Your task to perform on an android device: star an email in the gmail app Image 0: 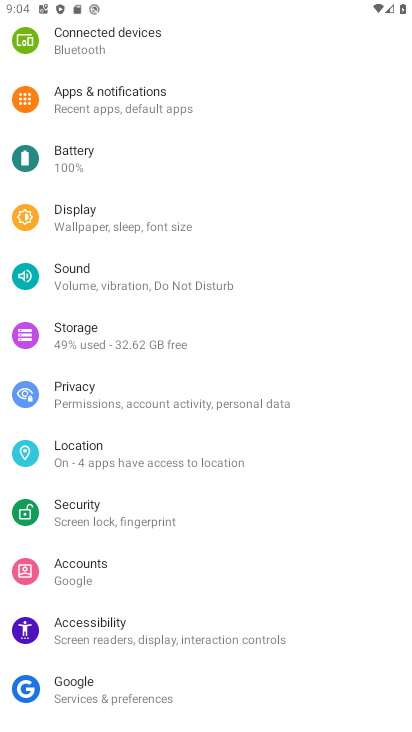
Step 0: press home button
Your task to perform on an android device: star an email in the gmail app Image 1: 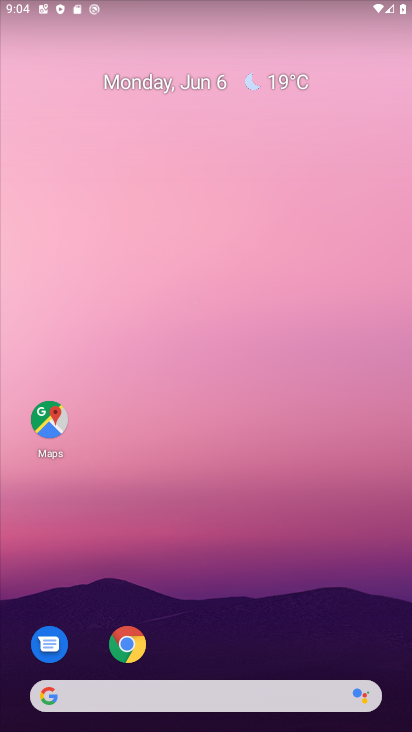
Step 1: drag from (197, 672) to (257, 259)
Your task to perform on an android device: star an email in the gmail app Image 2: 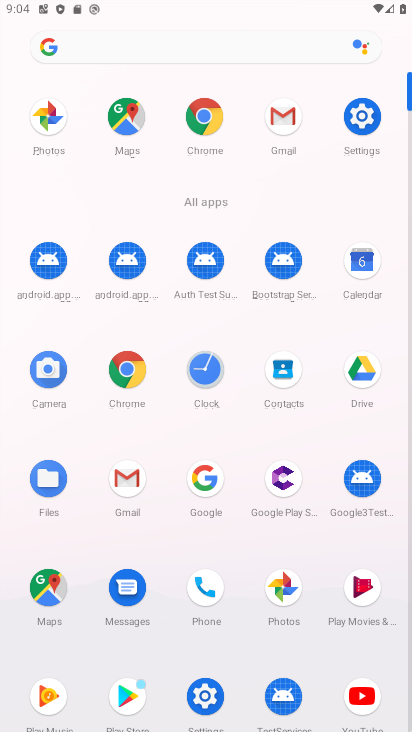
Step 2: click (131, 493)
Your task to perform on an android device: star an email in the gmail app Image 3: 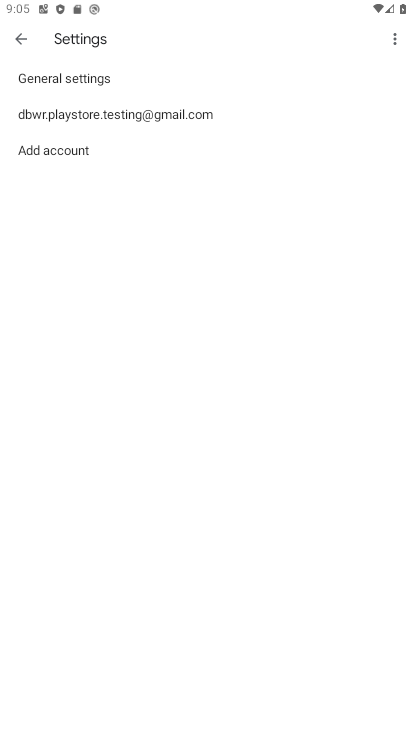
Step 3: click (12, 43)
Your task to perform on an android device: star an email in the gmail app Image 4: 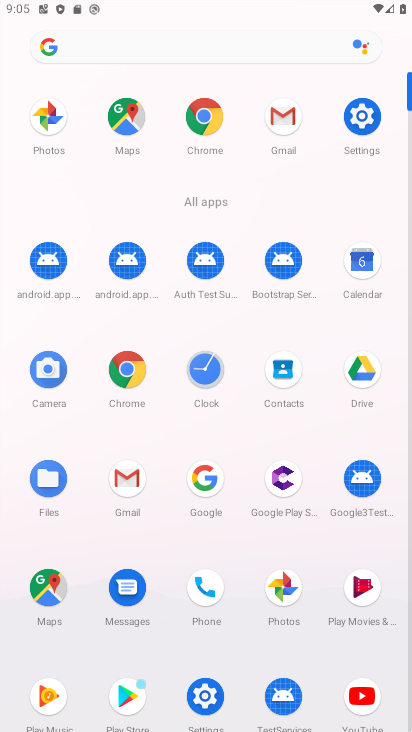
Step 4: click (127, 481)
Your task to perform on an android device: star an email in the gmail app Image 5: 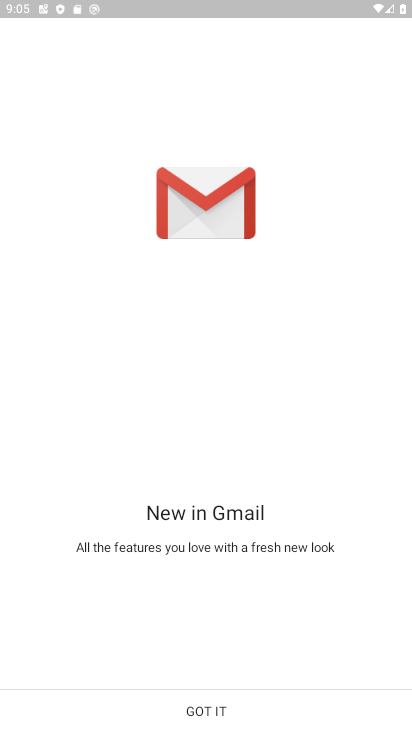
Step 5: click (221, 709)
Your task to perform on an android device: star an email in the gmail app Image 6: 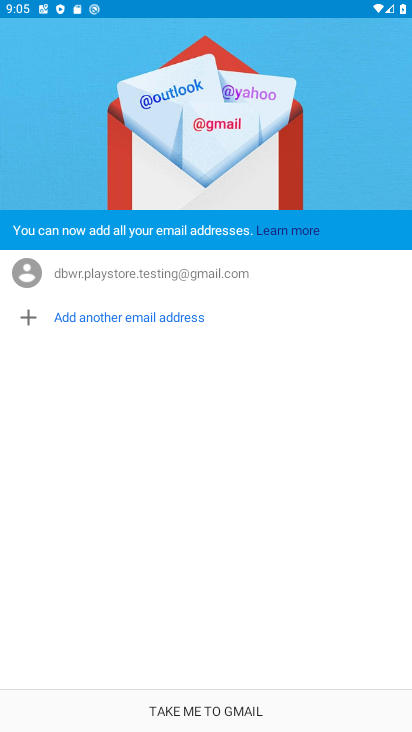
Step 6: click (221, 709)
Your task to perform on an android device: star an email in the gmail app Image 7: 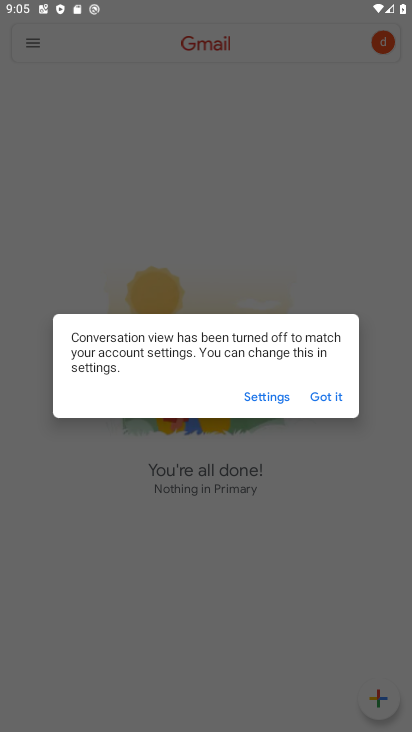
Step 7: click (326, 401)
Your task to perform on an android device: star an email in the gmail app Image 8: 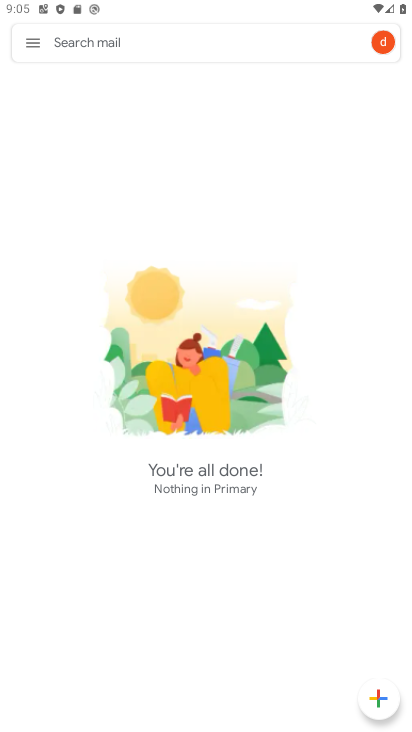
Step 8: click (28, 34)
Your task to perform on an android device: star an email in the gmail app Image 9: 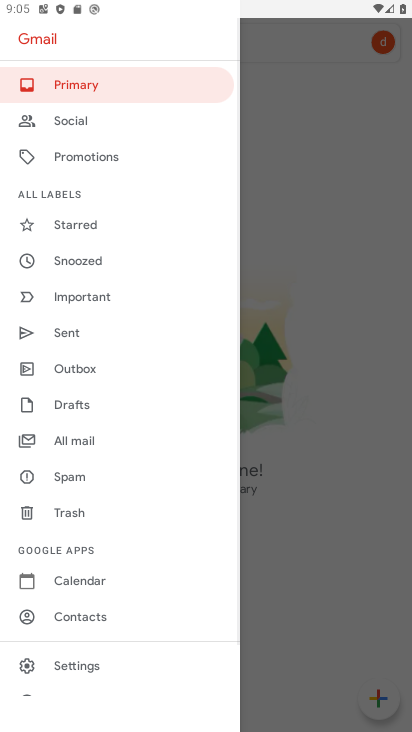
Step 9: click (127, 432)
Your task to perform on an android device: star an email in the gmail app Image 10: 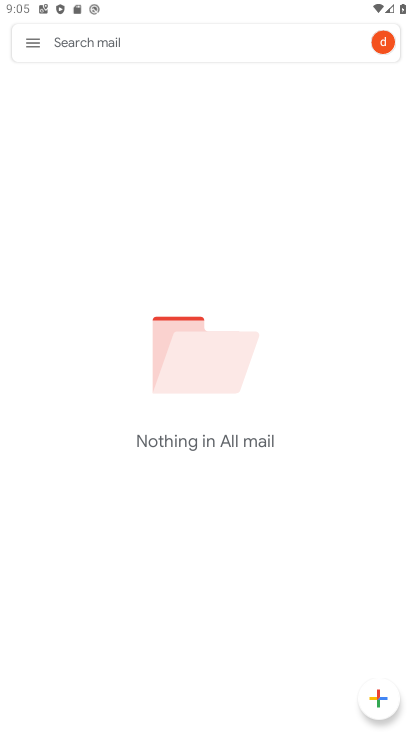
Step 10: task complete